Your task to perform on an android device: Go to Yahoo.com Image 0: 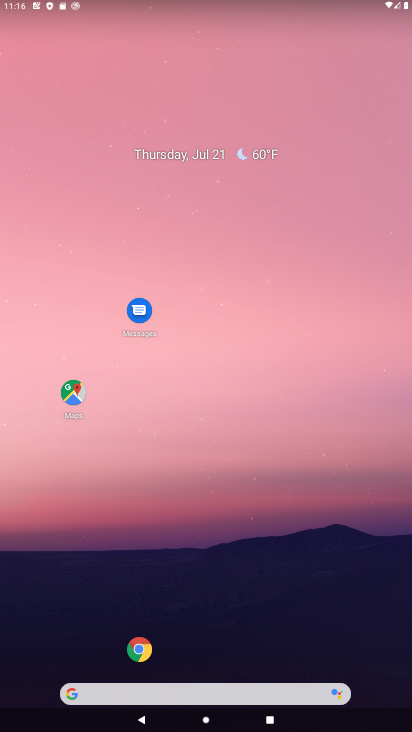
Step 0: click (114, 693)
Your task to perform on an android device: Go to Yahoo.com Image 1: 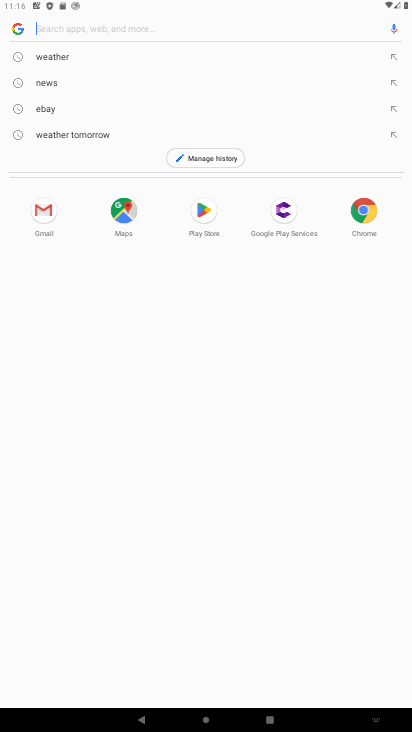
Step 1: type "Yahoo.com"
Your task to perform on an android device: Go to Yahoo.com Image 2: 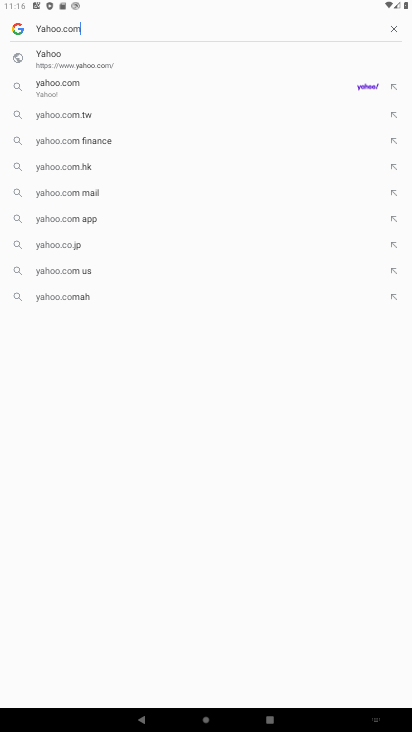
Step 2: type ""
Your task to perform on an android device: Go to Yahoo.com Image 3: 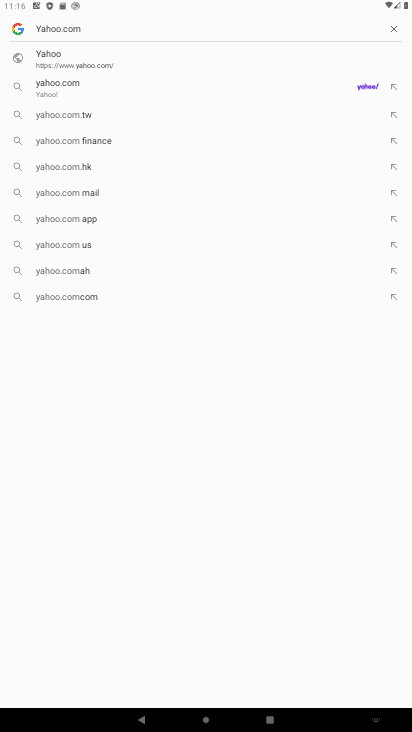
Step 3: click (60, 48)
Your task to perform on an android device: Go to Yahoo.com Image 4: 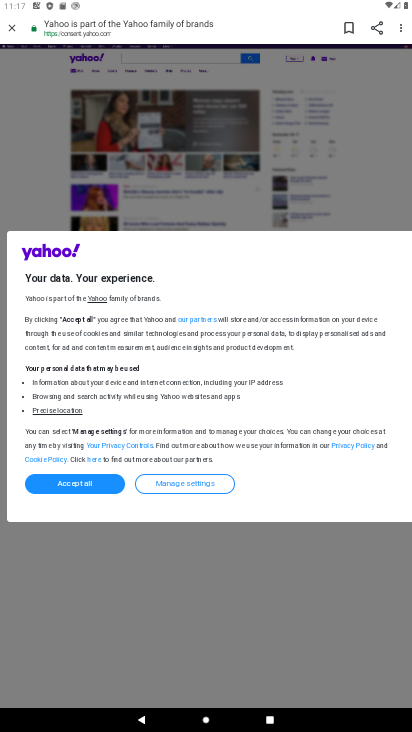
Step 4: task complete